Your task to perform on an android device: toggle wifi Image 0: 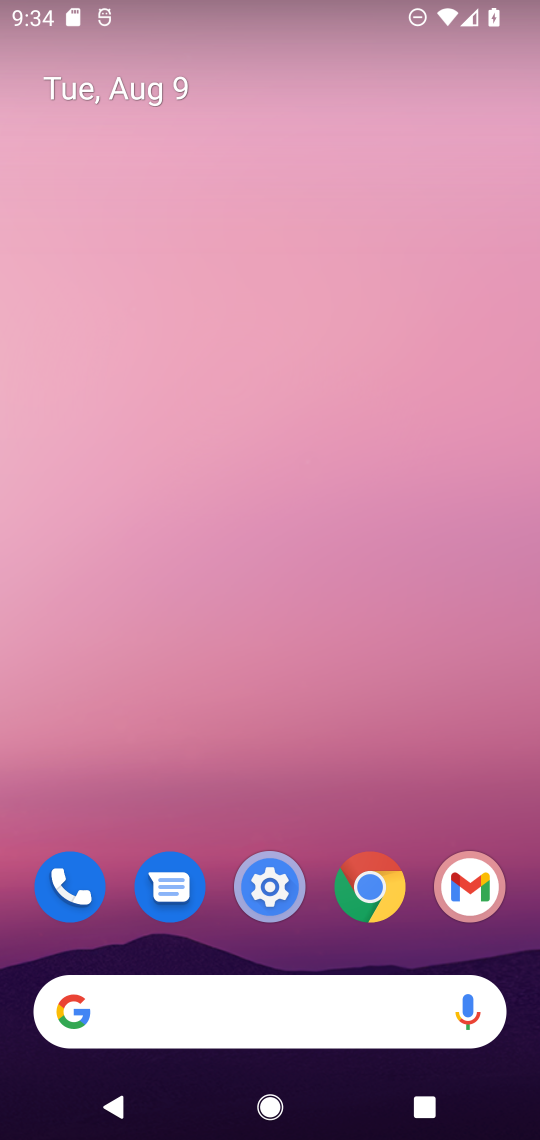
Step 0: click (275, 893)
Your task to perform on an android device: toggle wifi Image 1: 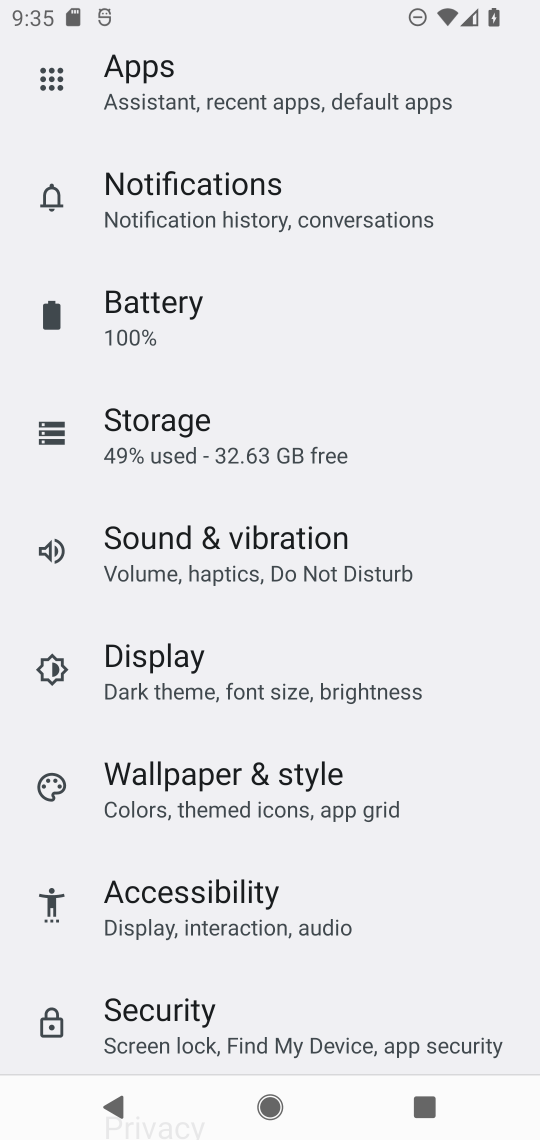
Step 1: drag from (267, 322) to (254, 866)
Your task to perform on an android device: toggle wifi Image 2: 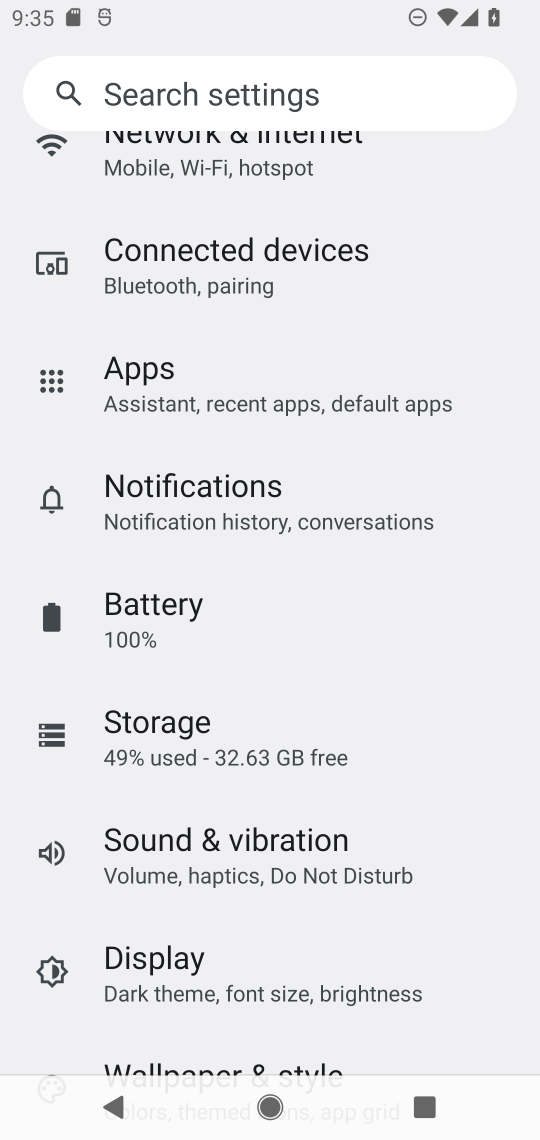
Step 2: drag from (240, 223) to (231, 718)
Your task to perform on an android device: toggle wifi Image 3: 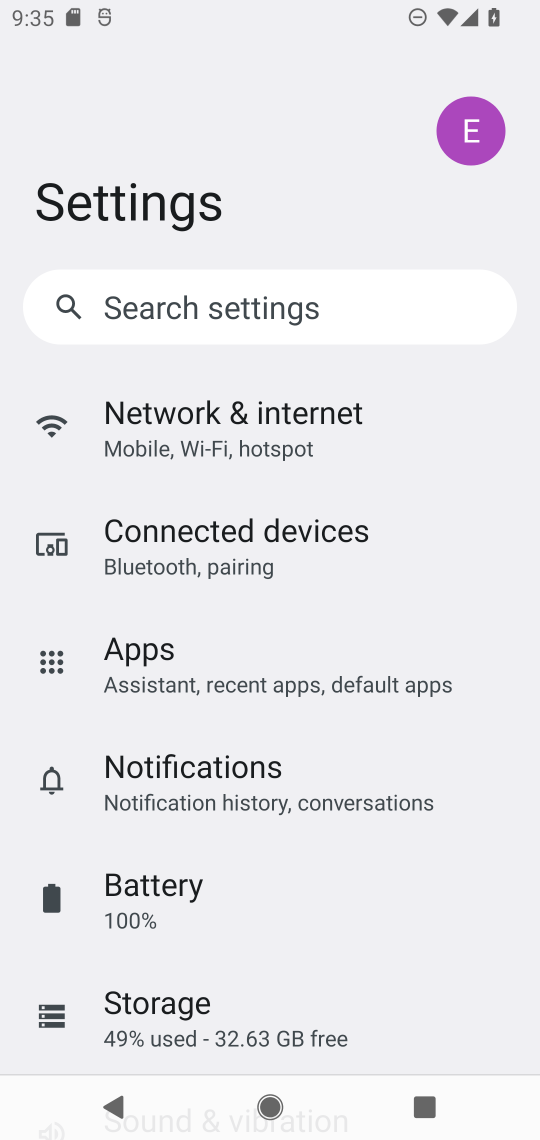
Step 3: click (180, 407)
Your task to perform on an android device: toggle wifi Image 4: 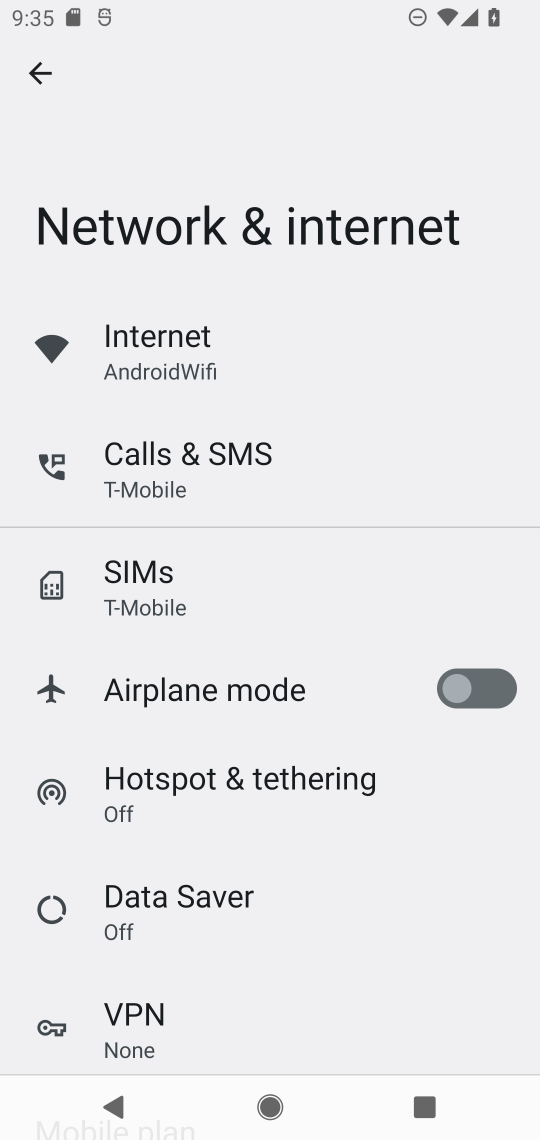
Step 4: click (236, 339)
Your task to perform on an android device: toggle wifi Image 5: 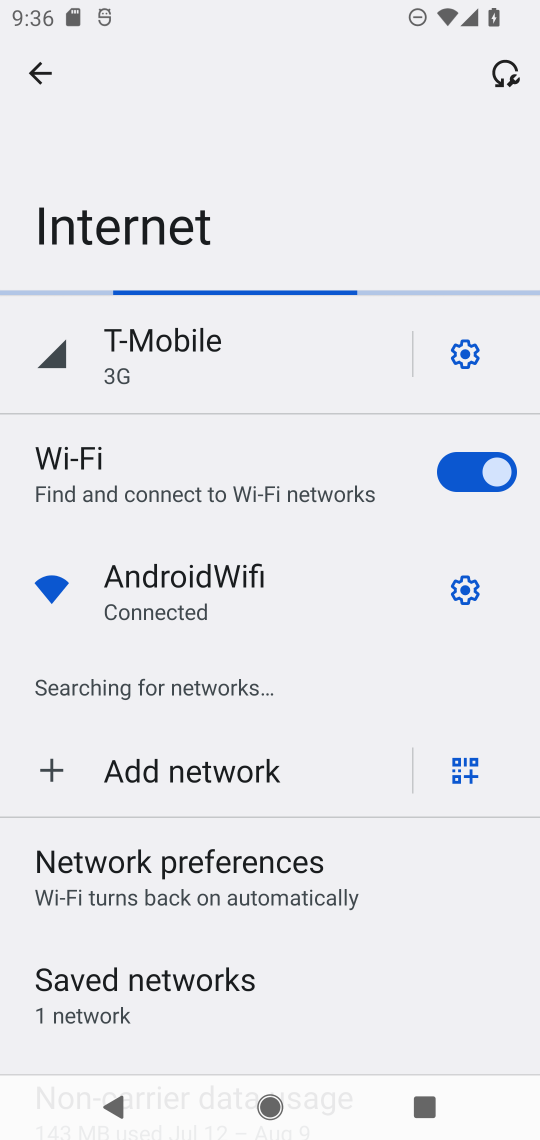
Step 5: click (458, 481)
Your task to perform on an android device: toggle wifi Image 6: 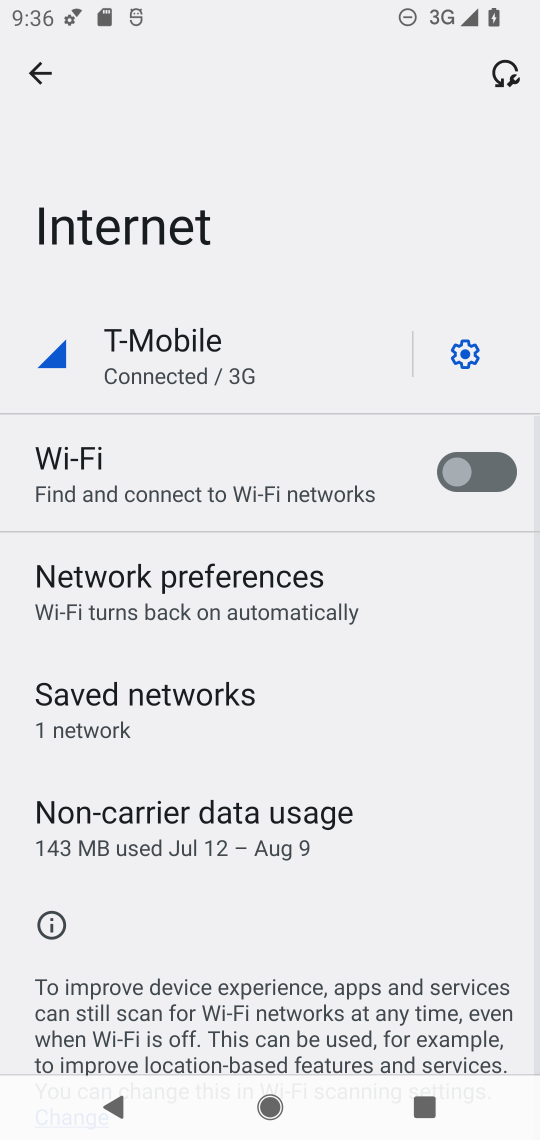
Step 6: task complete